Your task to perform on an android device: Open eBay Image 0: 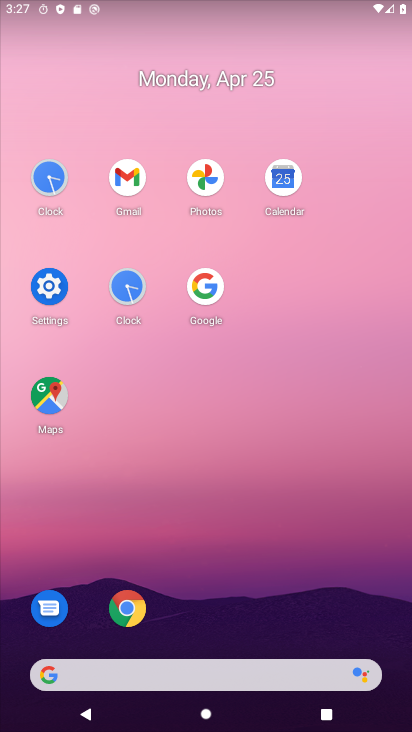
Step 0: click (124, 615)
Your task to perform on an android device: Open eBay Image 1: 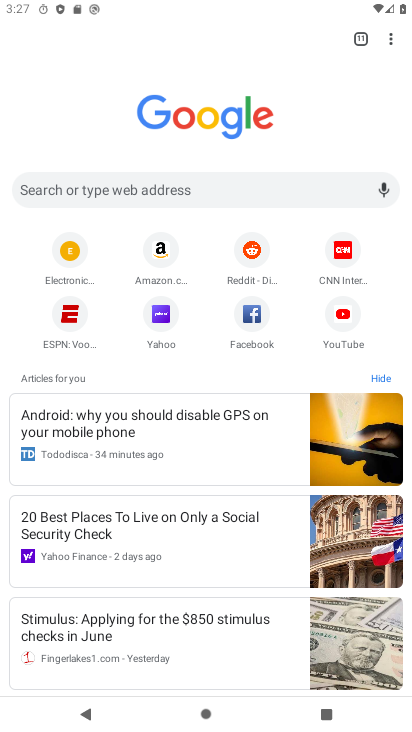
Step 1: click (235, 192)
Your task to perform on an android device: Open eBay Image 2: 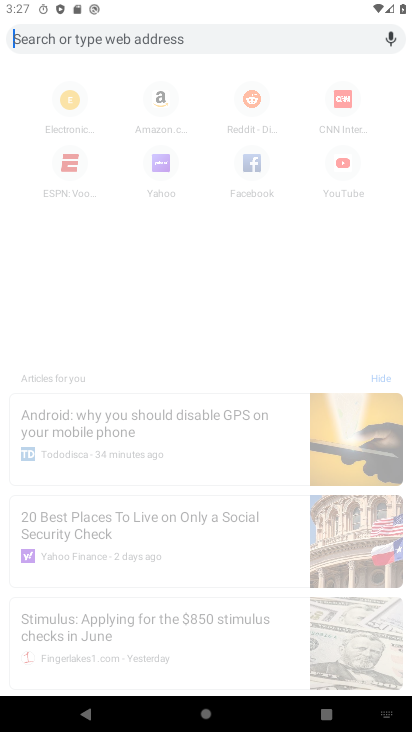
Step 2: type "ebay"
Your task to perform on an android device: Open eBay Image 3: 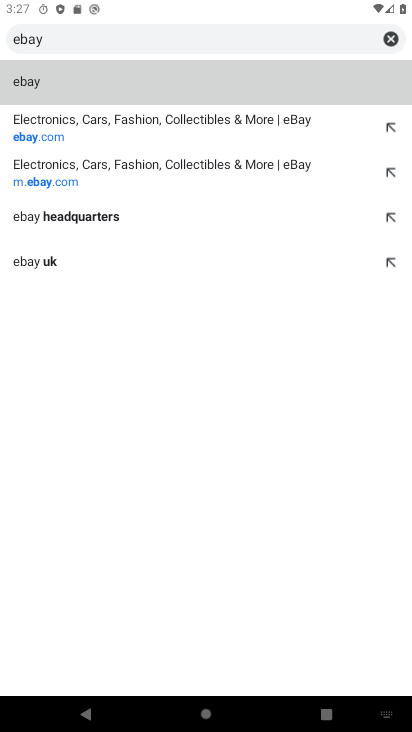
Step 3: click (83, 131)
Your task to perform on an android device: Open eBay Image 4: 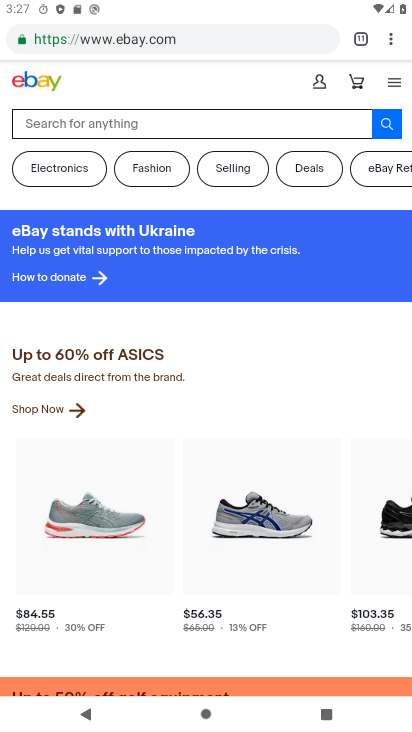
Step 4: task complete